Your task to perform on an android device: delete browsing data in the chrome app Image 0: 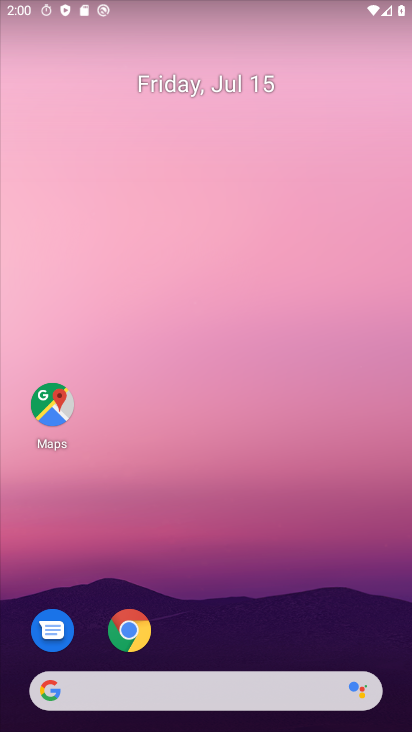
Step 0: click (111, 629)
Your task to perform on an android device: delete browsing data in the chrome app Image 1: 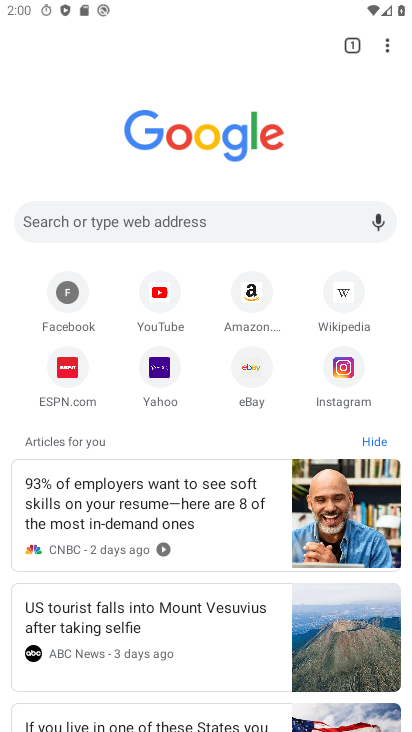
Step 1: click (379, 43)
Your task to perform on an android device: delete browsing data in the chrome app Image 2: 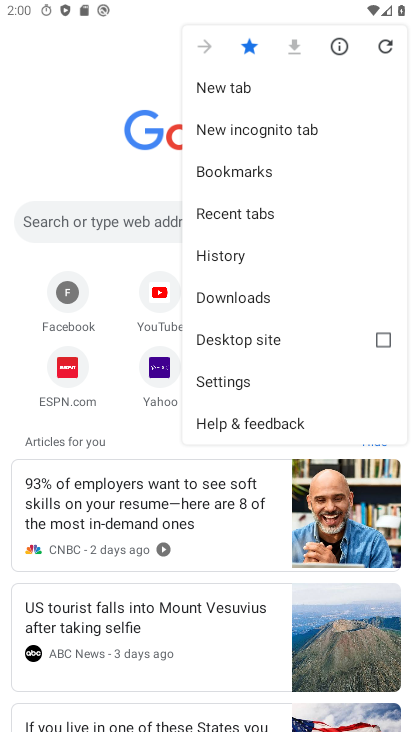
Step 2: click (219, 245)
Your task to perform on an android device: delete browsing data in the chrome app Image 3: 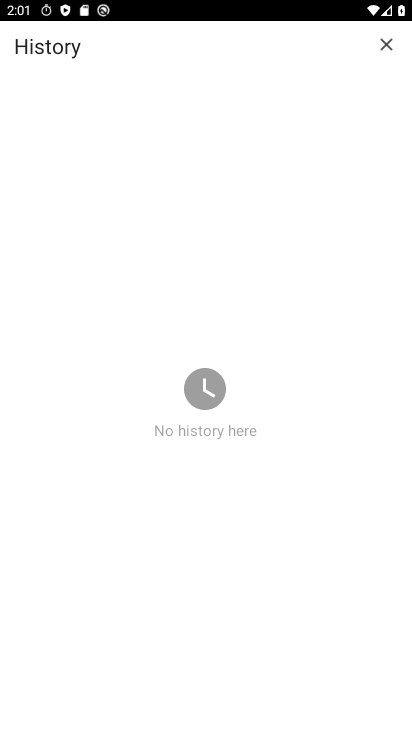
Step 3: task complete